Your task to perform on an android device: How do I get to the nearest Apple Store? Image 0: 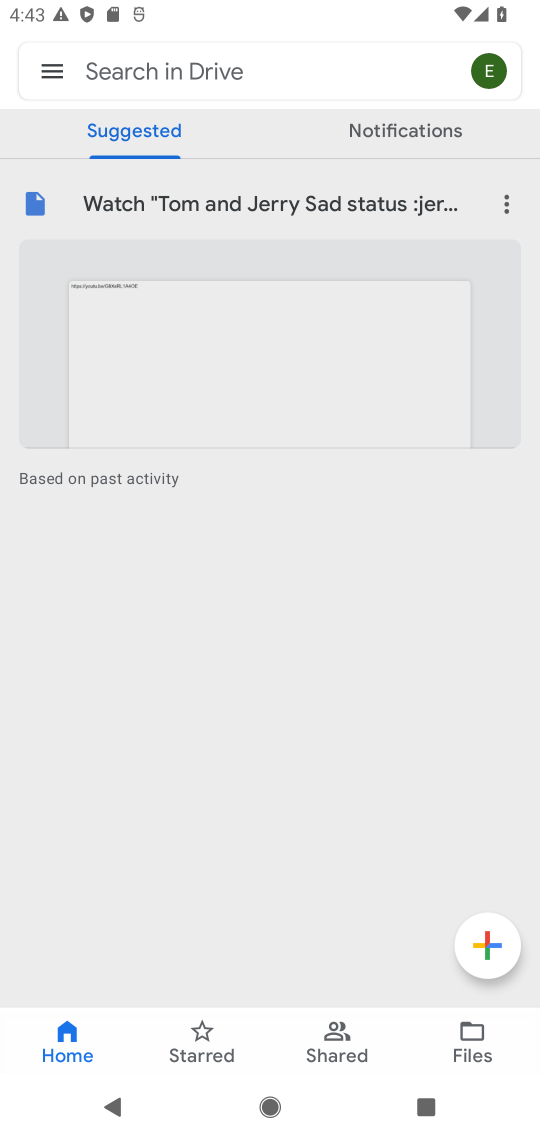
Step 0: press home button
Your task to perform on an android device: How do I get to the nearest Apple Store? Image 1: 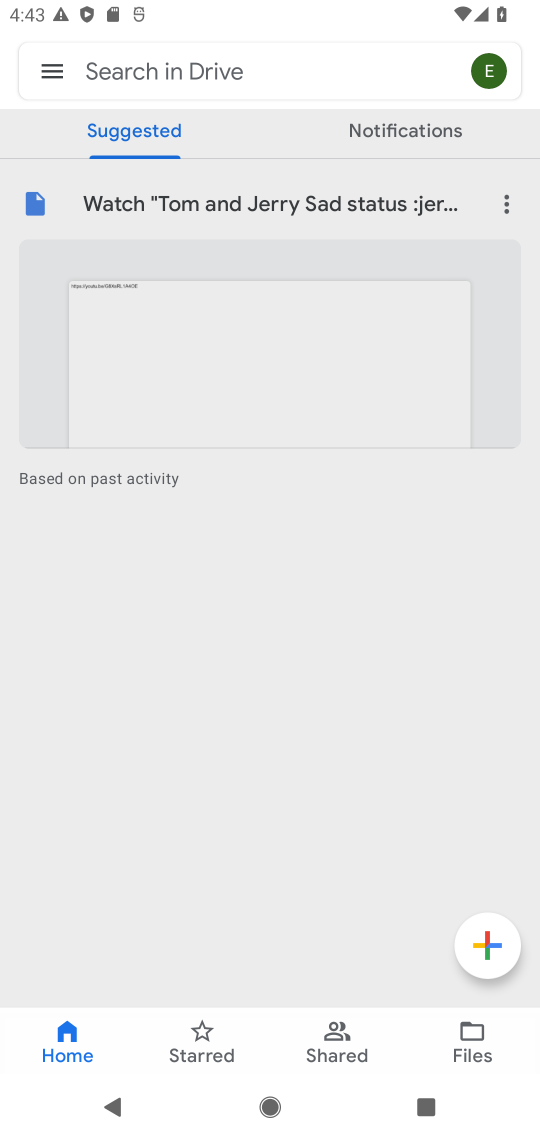
Step 1: press home button
Your task to perform on an android device: How do I get to the nearest Apple Store? Image 2: 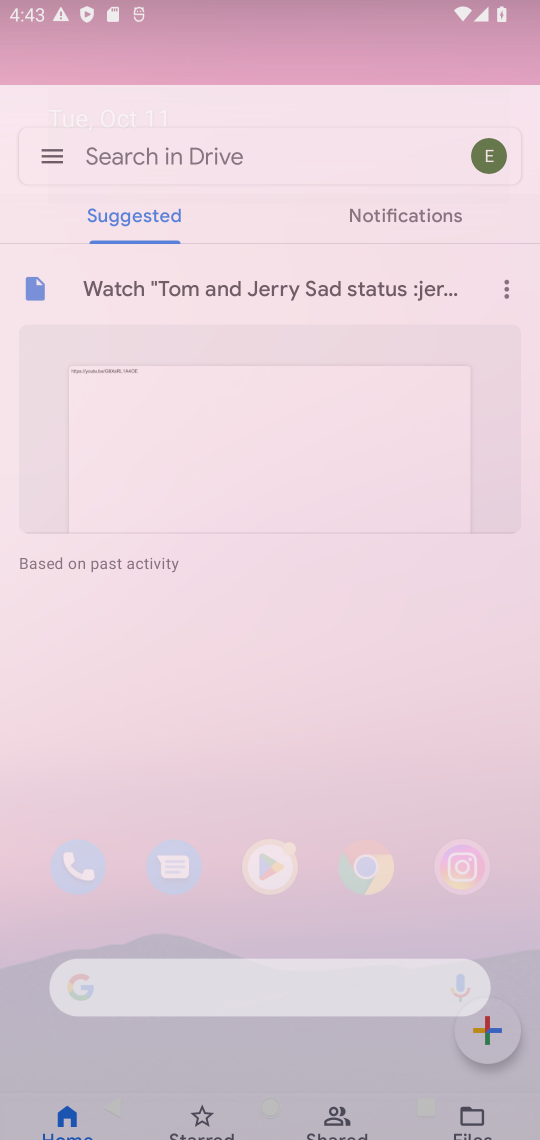
Step 2: press home button
Your task to perform on an android device: How do I get to the nearest Apple Store? Image 3: 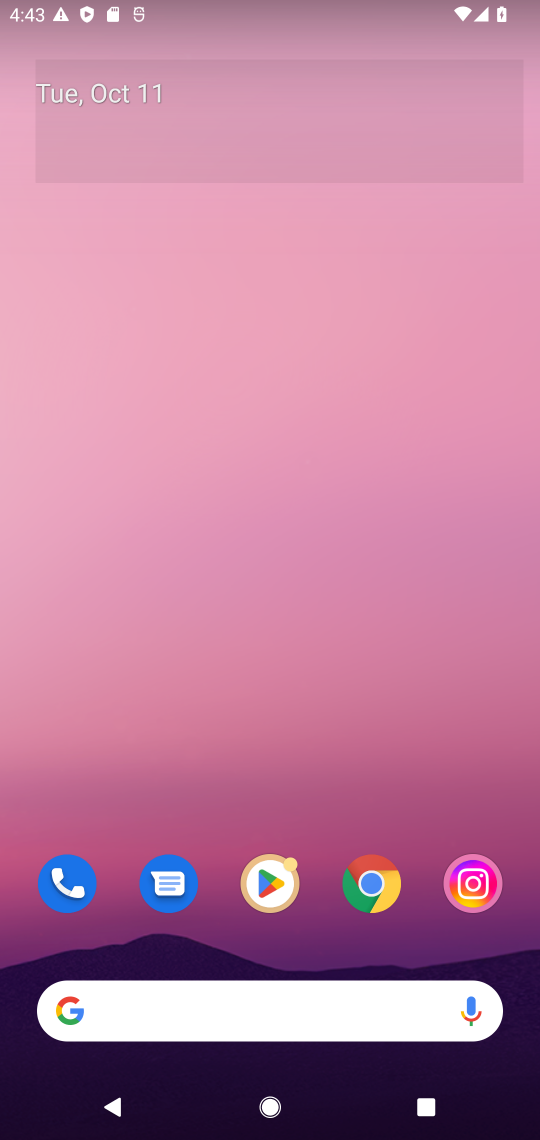
Step 3: press home button
Your task to perform on an android device: How do I get to the nearest Apple Store? Image 4: 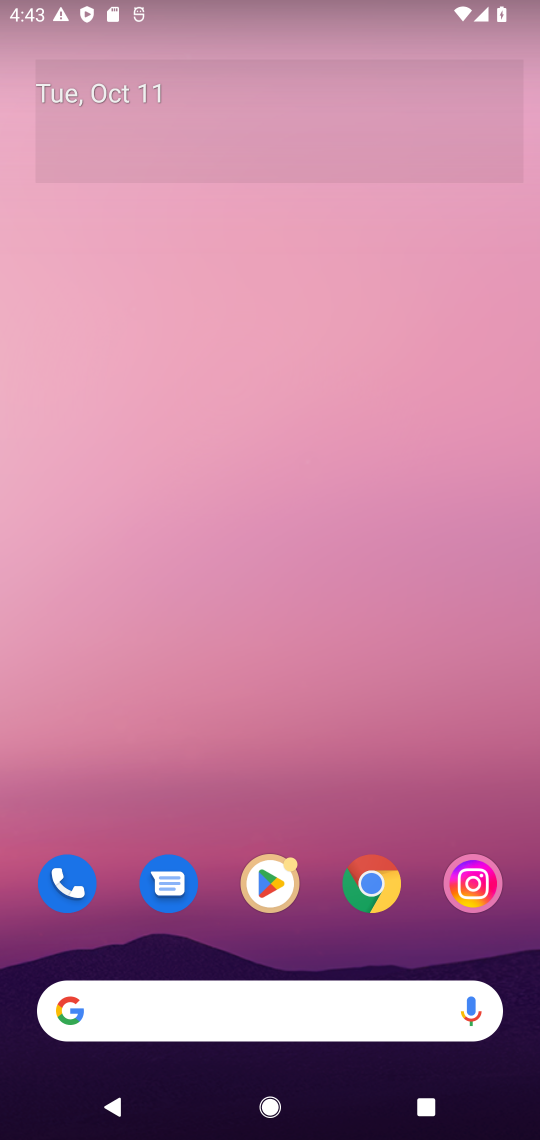
Step 4: drag from (320, 946) to (305, 49)
Your task to perform on an android device: How do I get to the nearest Apple Store? Image 5: 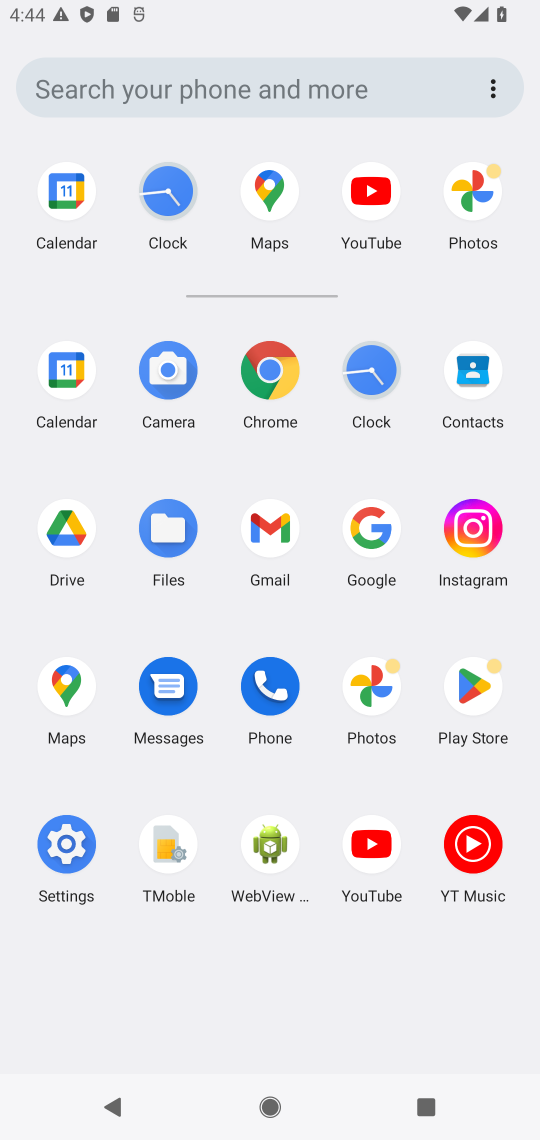
Step 5: click (275, 369)
Your task to perform on an android device: How do I get to the nearest Apple Store? Image 6: 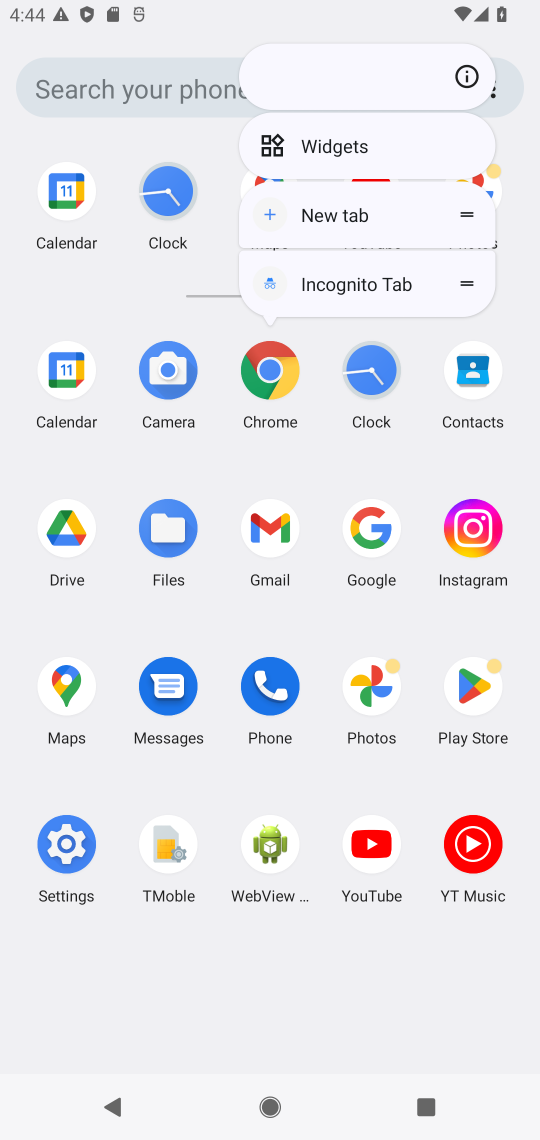
Step 6: click (272, 369)
Your task to perform on an android device: How do I get to the nearest Apple Store? Image 7: 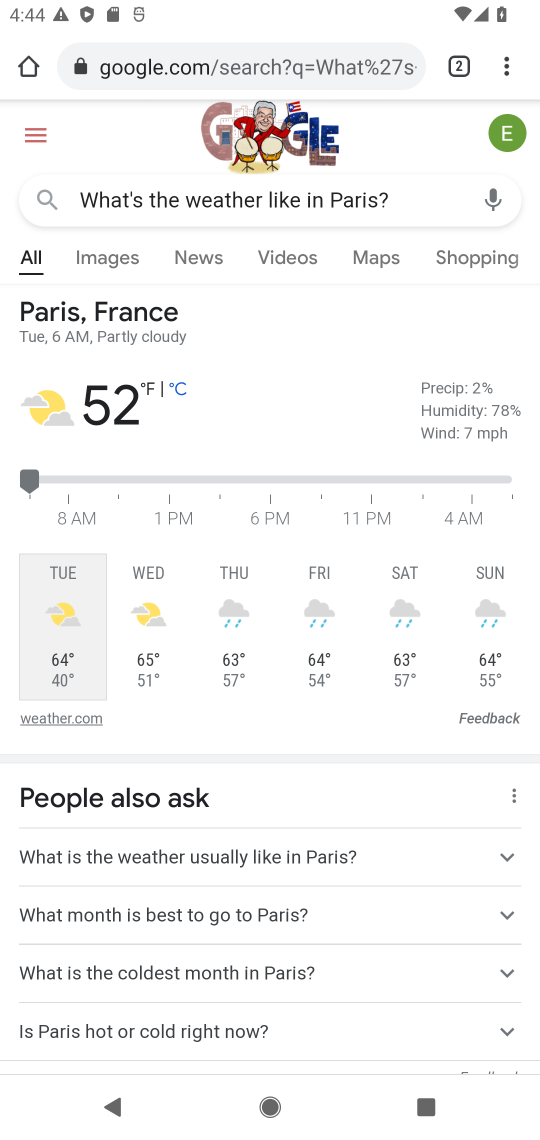
Step 7: click (293, 77)
Your task to perform on an android device: How do I get to the nearest Apple Store? Image 8: 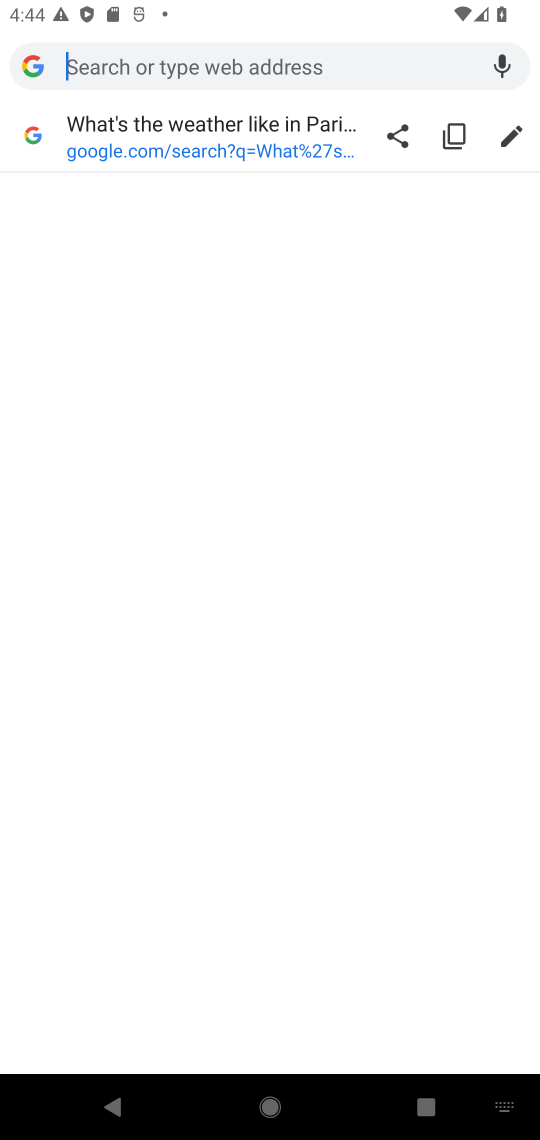
Step 8: type "How do I get to the nearest Apple Store?"
Your task to perform on an android device: How do I get to the nearest Apple Store? Image 9: 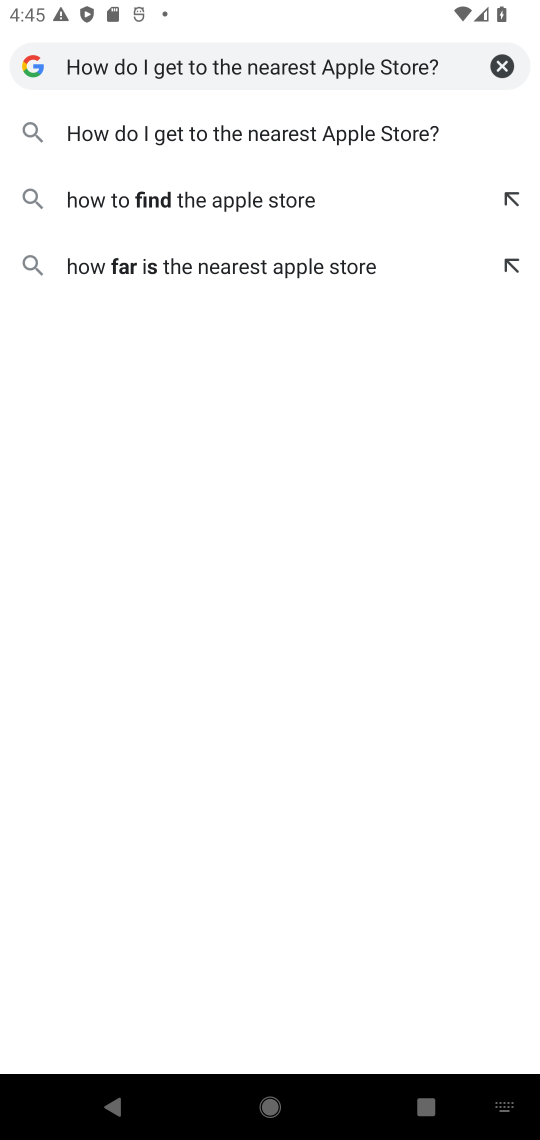
Step 9: press enter
Your task to perform on an android device: How do I get to the nearest Apple Store? Image 10: 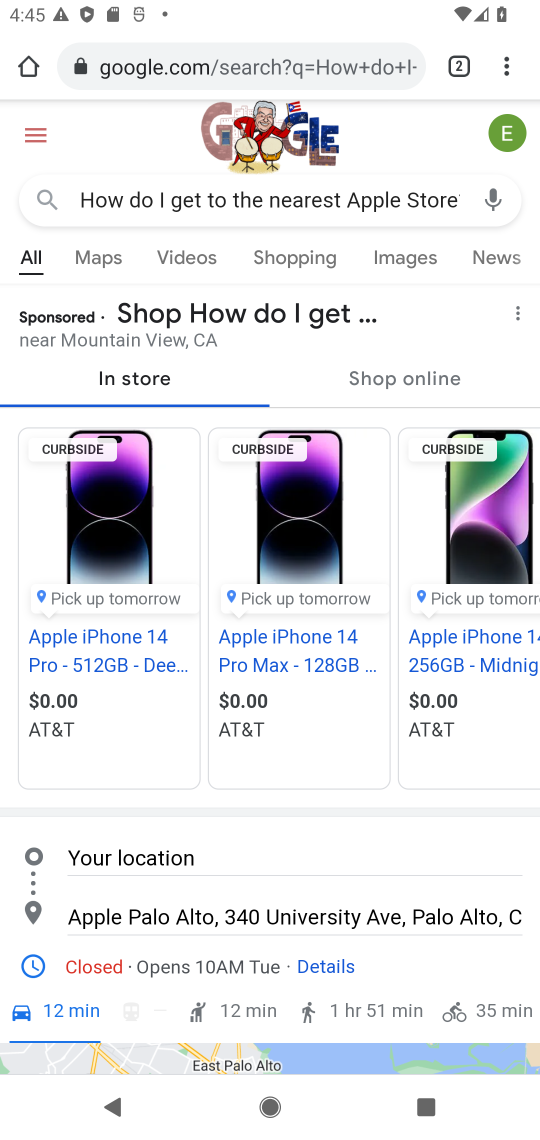
Step 10: task complete